Your task to perform on an android device: Open settings Image 0: 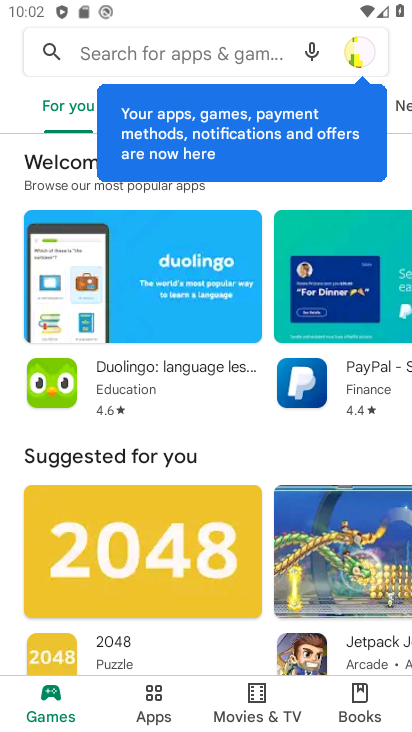
Step 0: press home button
Your task to perform on an android device: Open settings Image 1: 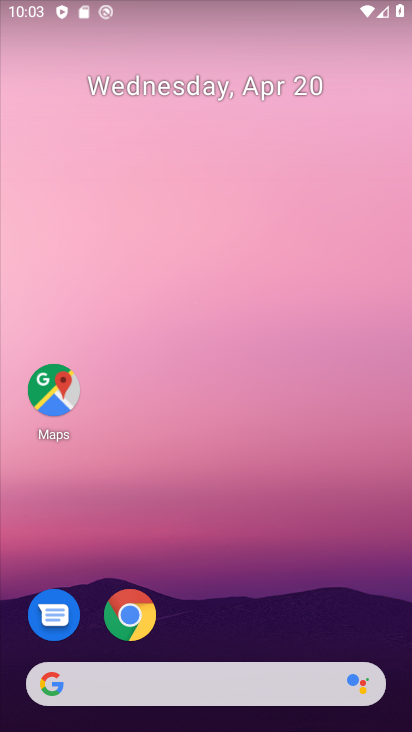
Step 1: drag from (269, 592) to (248, 142)
Your task to perform on an android device: Open settings Image 2: 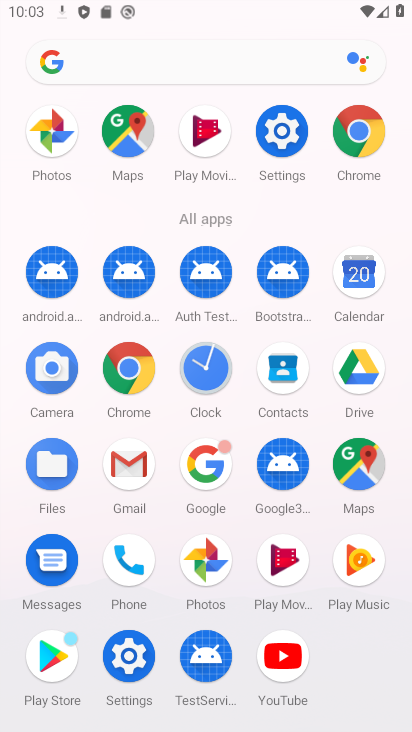
Step 2: click (284, 122)
Your task to perform on an android device: Open settings Image 3: 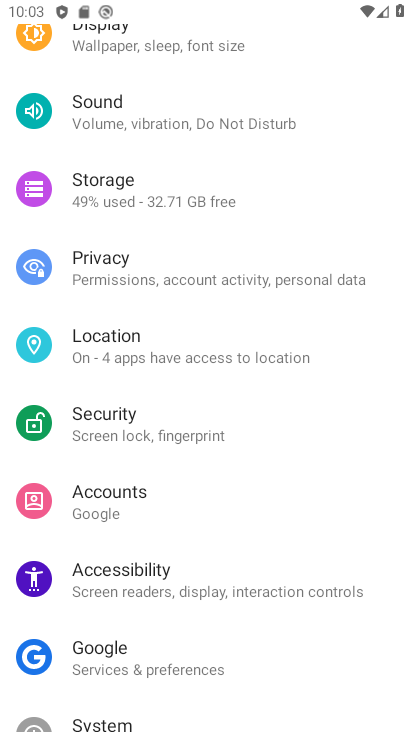
Step 3: task complete